Your task to perform on an android device: turn off notifications settings in the gmail app Image 0: 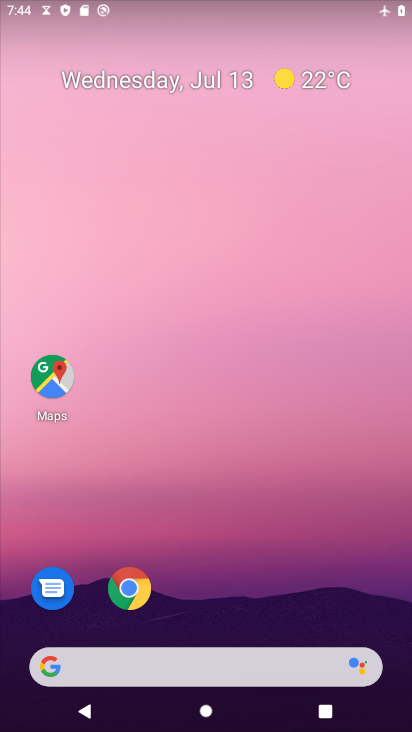
Step 0: drag from (247, 589) to (249, 209)
Your task to perform on an android device: turn off notifications settings in the gmail app Image 1: 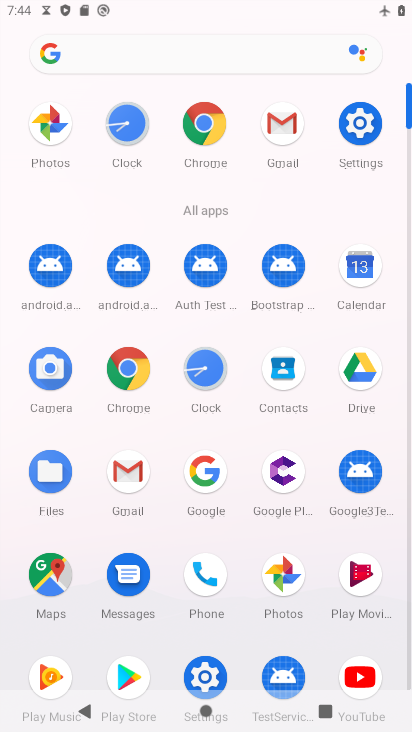
Step 1: click (284, 129)
Your task to perform on an android device: turn off notifications settings in the gmail app Image 2: 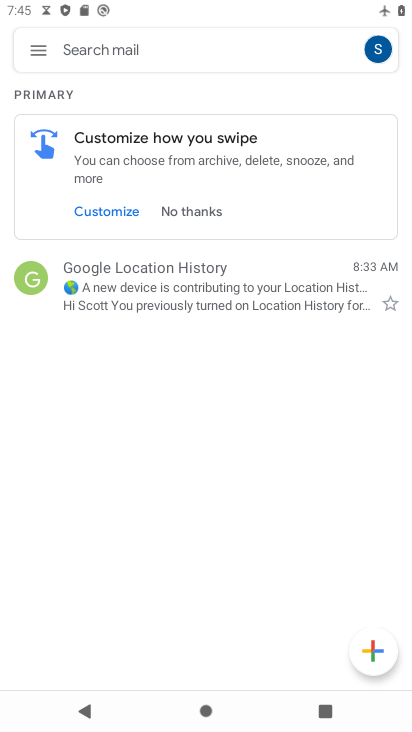
Step 2: click (45, 45)
Your task to perform on an android device: turn off notifications settings in the gmail app Image 3: 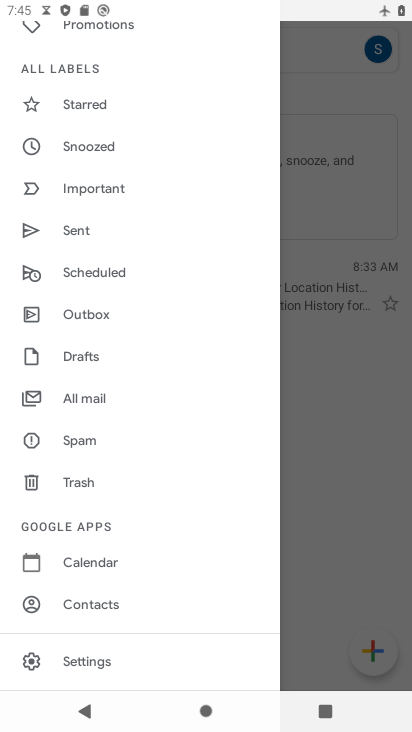
Step 3: click (120, 650)
Your task to perform on an android device: turn off notifications settings in the gmail app Image 4: 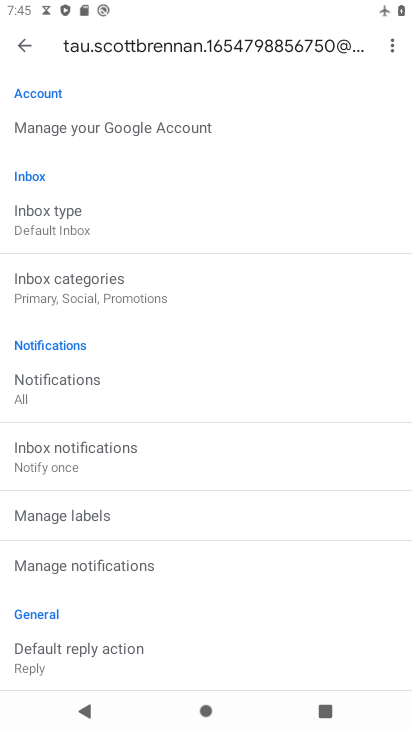
Step 4: click (129, 377)
Your task to perform on an android device: turn off notifications settings in the gmail app Image 5: 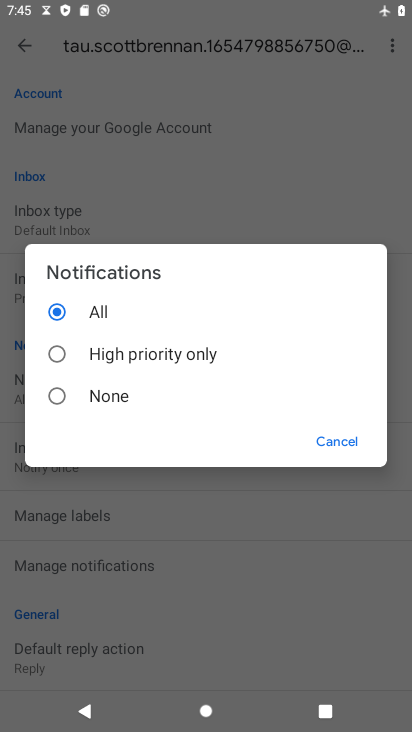
Step 5: click (112, 408)
Your task to perform on an android device: turn off notifications settings in the gmail app Image 6: 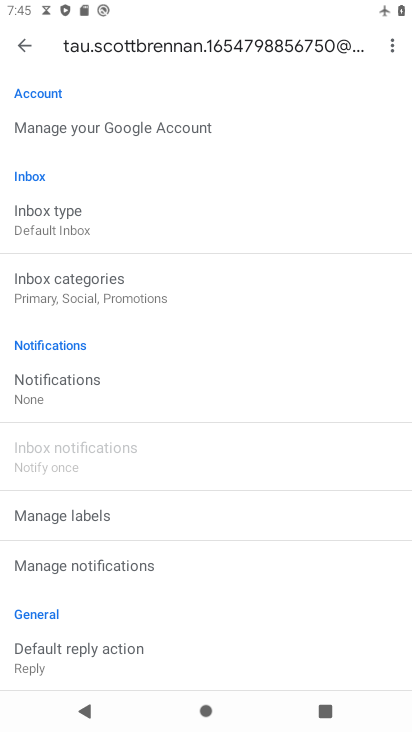
Step 6: task complete